Your task to perform on an android device: Open calendar and show me the first week of next month Image 0: 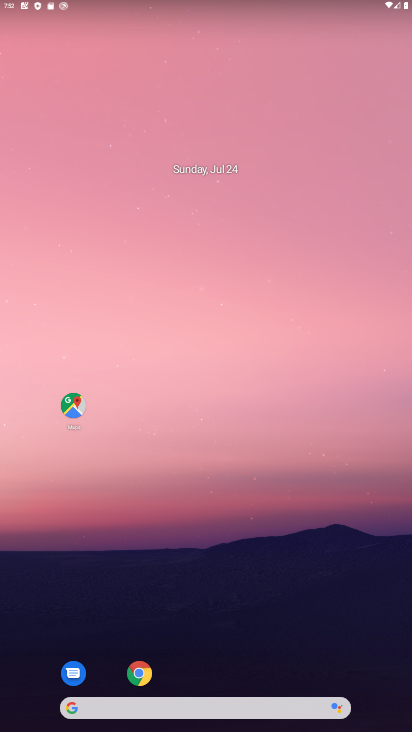
Step 0: drag from (189, 601) to (182, 287)
Your task to perform on an android device: Open calendar and show me the first week of next month Image 1: 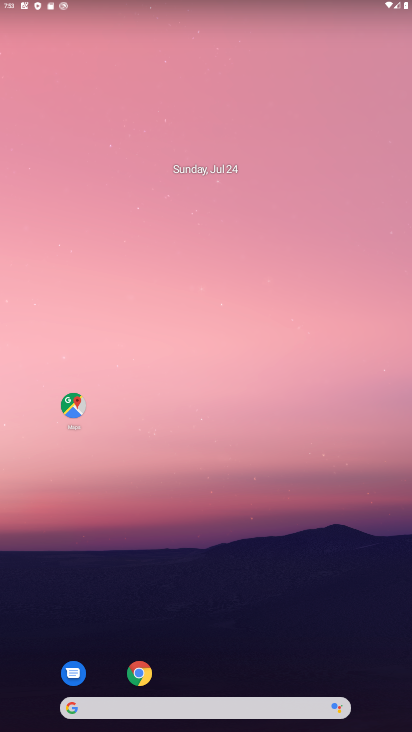
Step 1: drag from (190, 639) to (233, 86)
Your task to perform on an android device: Open calendar and show me the first week of next month Image 2: 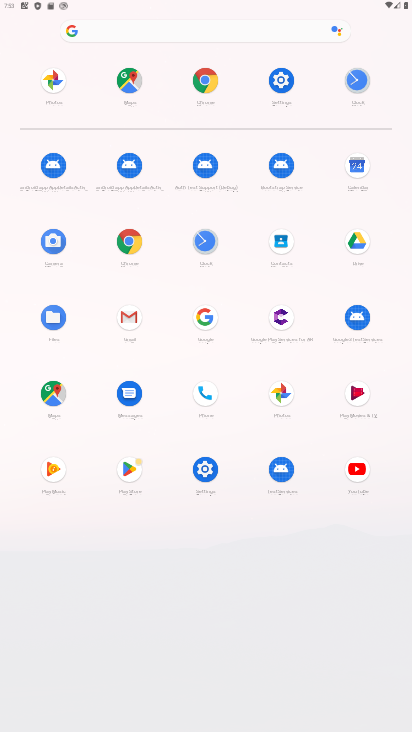
Step 2: click (363, 171)
Your task to perform on an android device: Open calendar and show me the first week of next month Image 3: 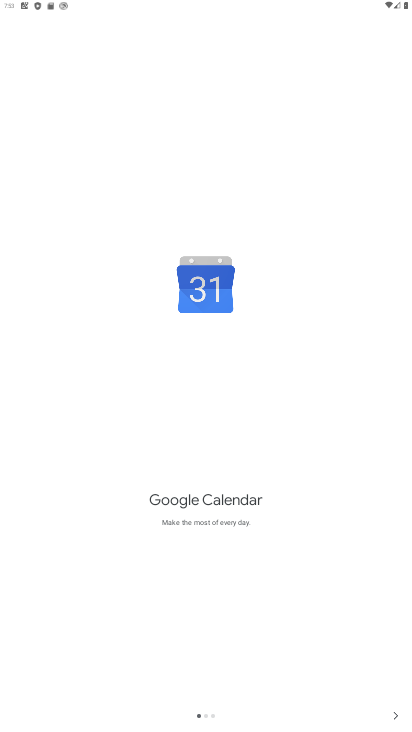
Step 3: click (390, 707)
Your task to perform on an android device: Open calendar and show me the first week of next month Image 4: 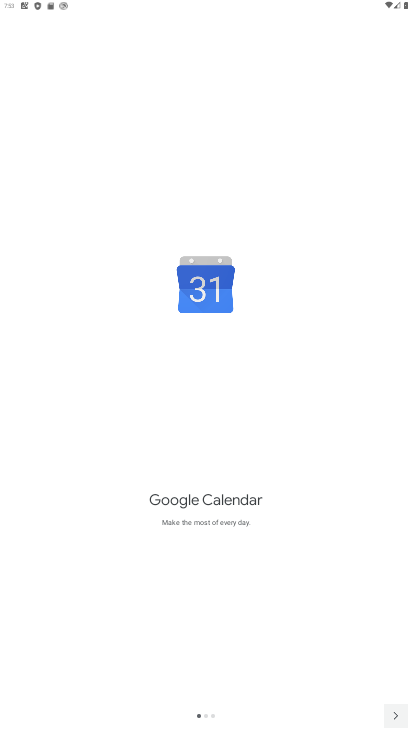
Step 4: click (393, 712)
Your task to perform on an android device: Open calendar and show me the first week of next month Image 5: 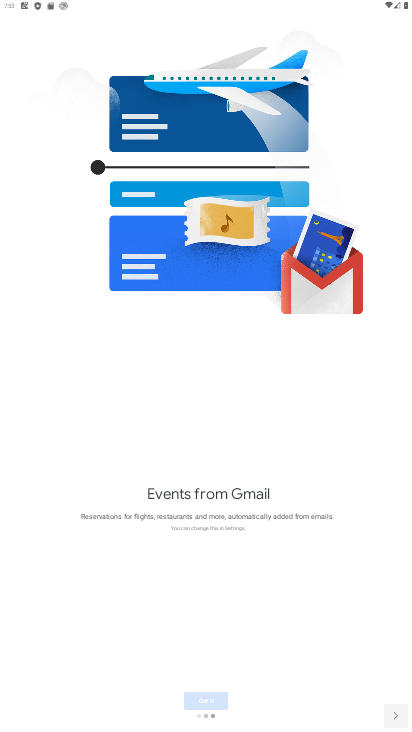
Step 5: click (393, 712)
Your task to perform on an android device: Open calendar and show me the first week of next month Image 6: 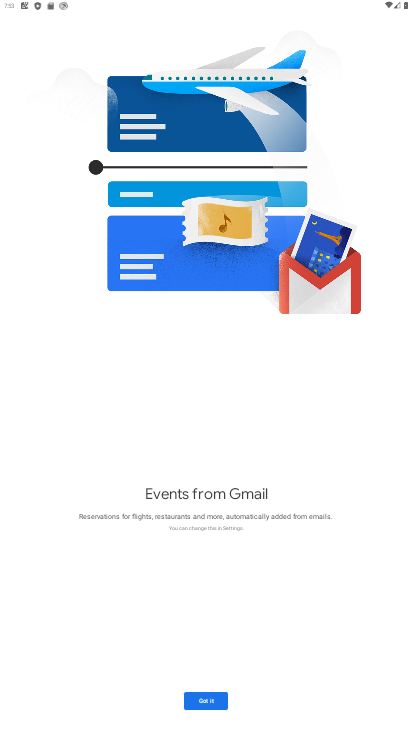
Step 6: click (216, 696)
Your task to perform on an android device: Open calendar and show me the first week of next month Image 7: 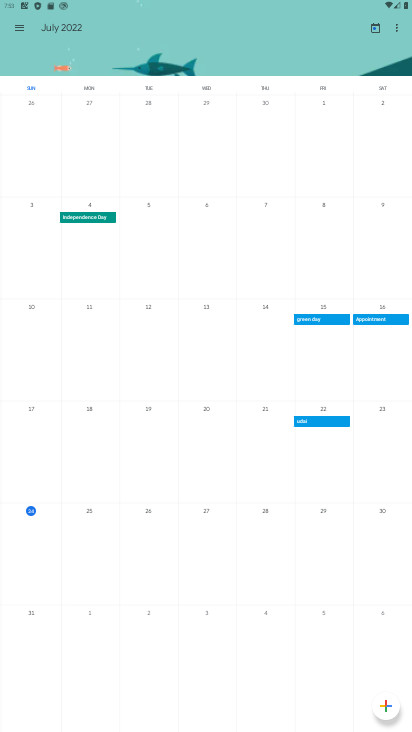
Step 7: drag from (305, 370) to (5, 370)
Your task to perform on an android device: Open calendar and show me the first week of next month Image 8: 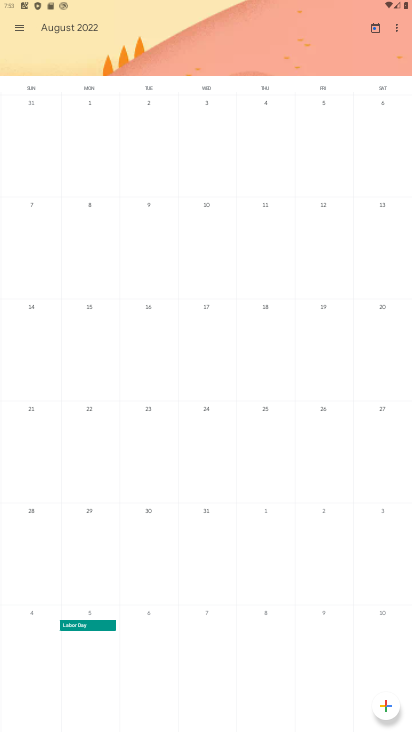
Step 8: click (263, 105)
Your task to perform on an android device: Open calendar and show me the first week of next month Image 9: 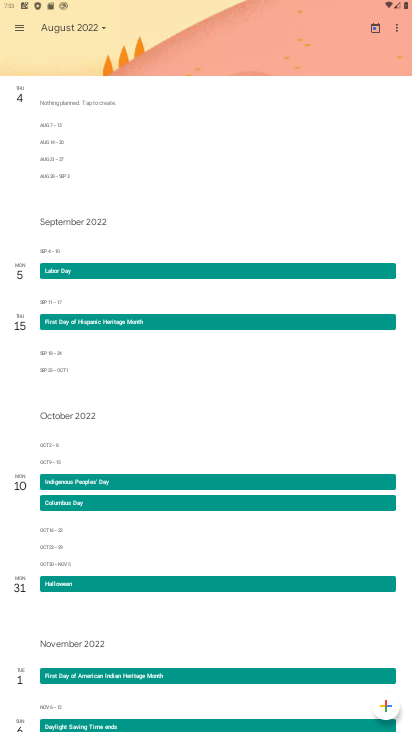
Step 9: task complete